Your task to perform on an android device: What's the weather going to be this weekend? Image 0: 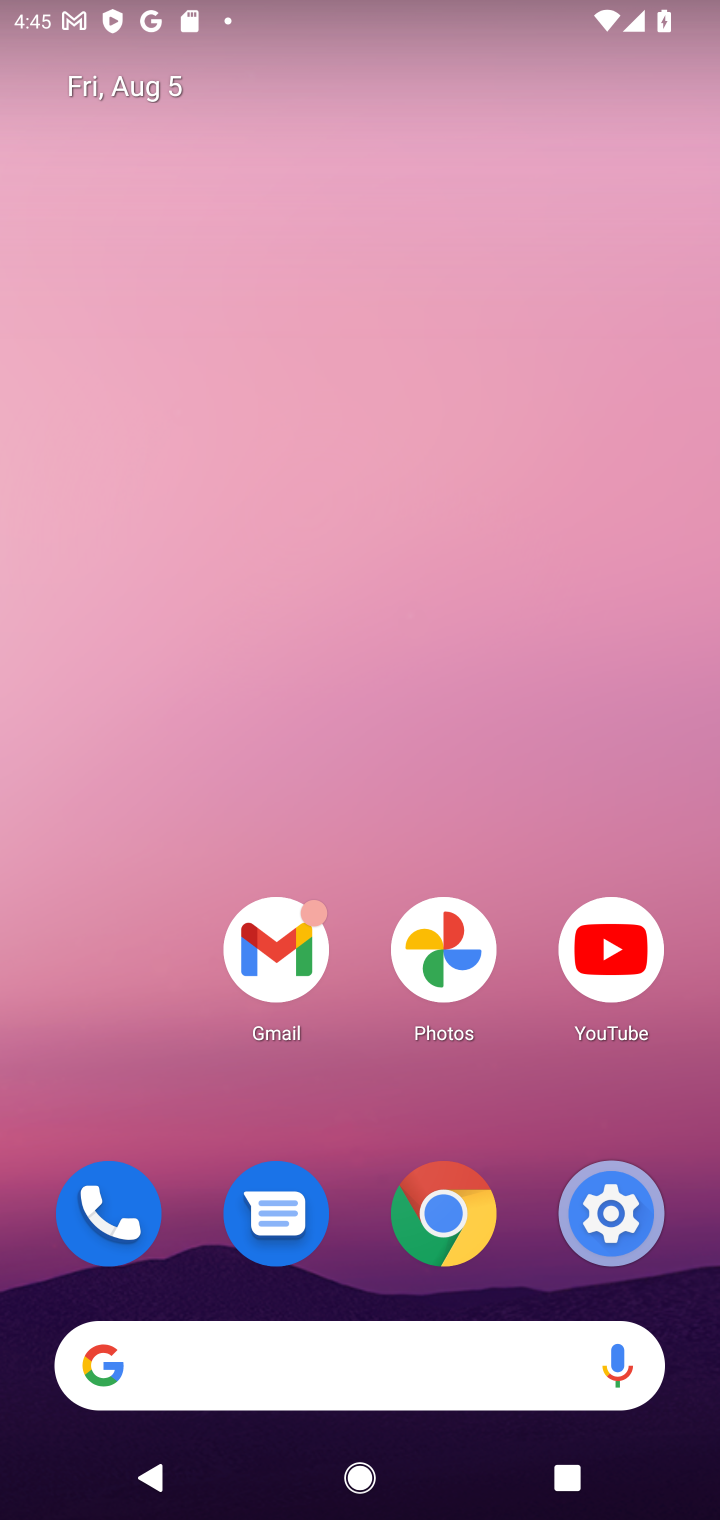
Step 0: click (266, 1386)
Your task to perform on an android device: What's the weather going to be this weekend? Image 1: 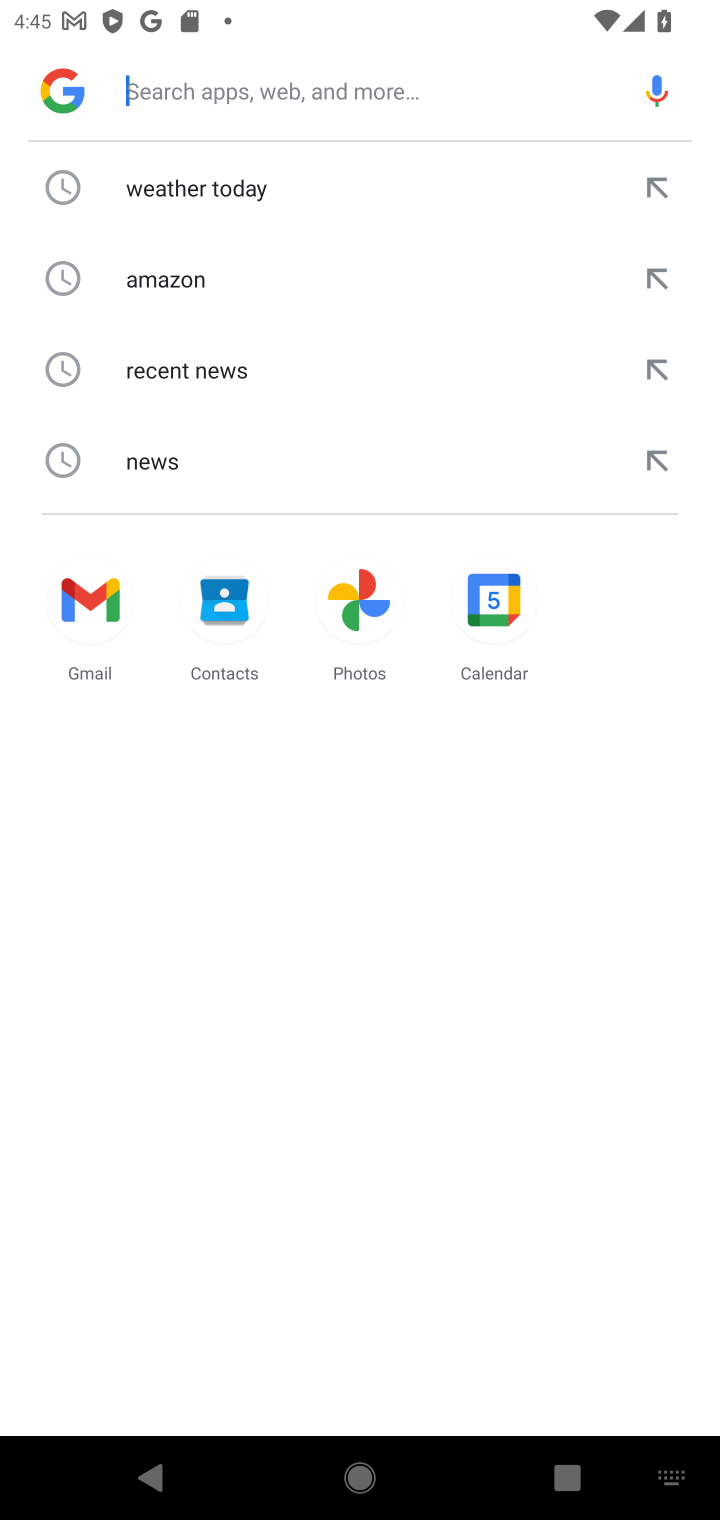
Step 1: click (355, 202)
Your task to perform on an android device: What's the weather going to be this weekend? Image 2: 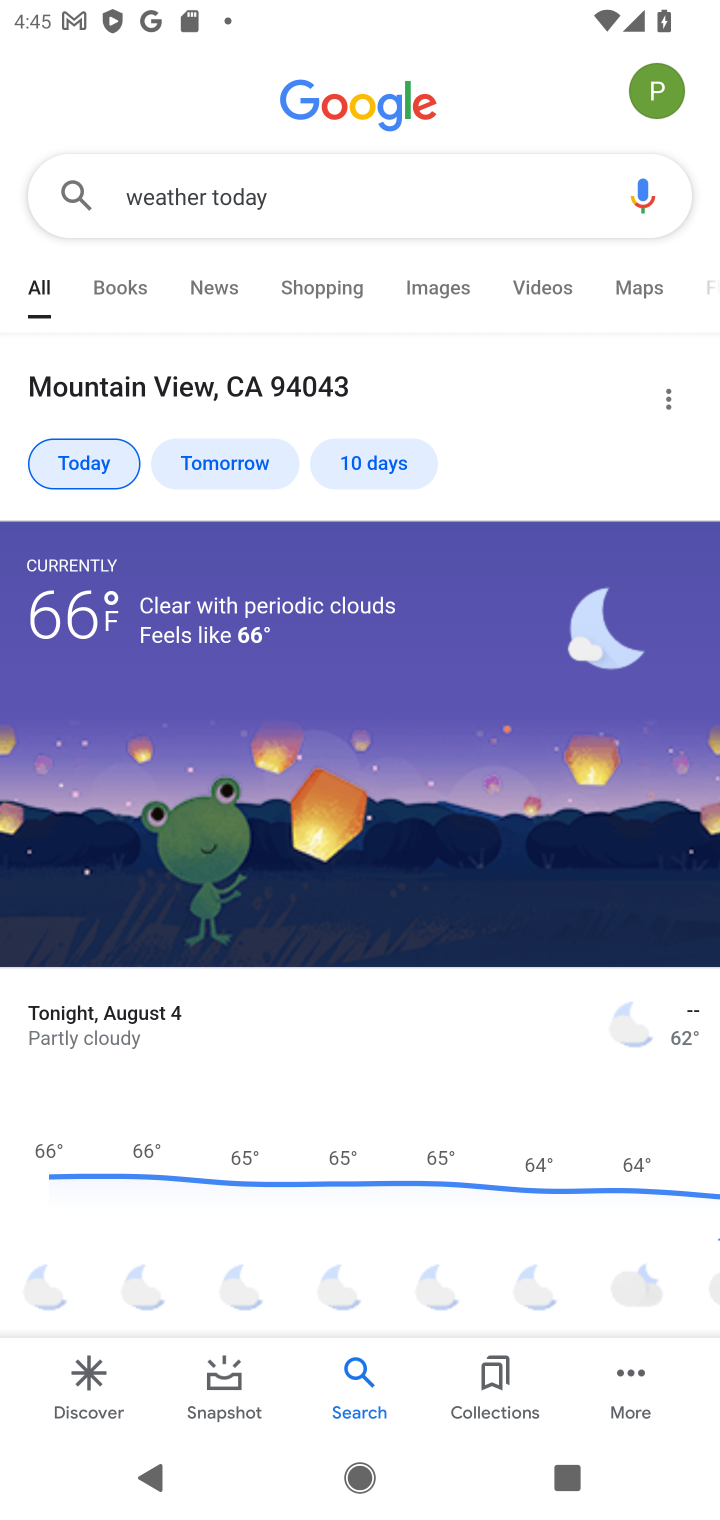
Step 2: click (399, 464)
Your task to perform on an android device: What's the weather going to be this weekend? Image 3: 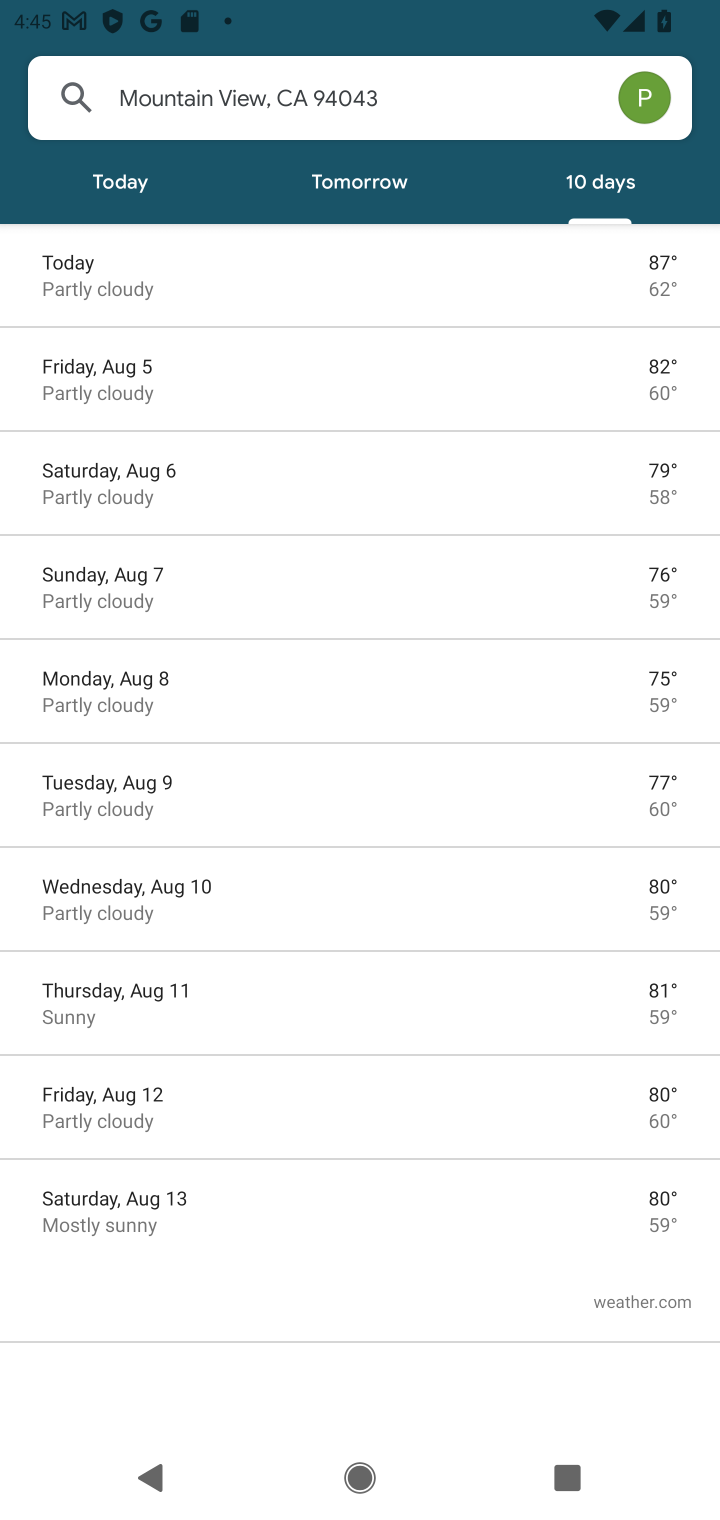
Step 3: task complete